Your task to perform on an android device: Open the stopwatch Image 0: 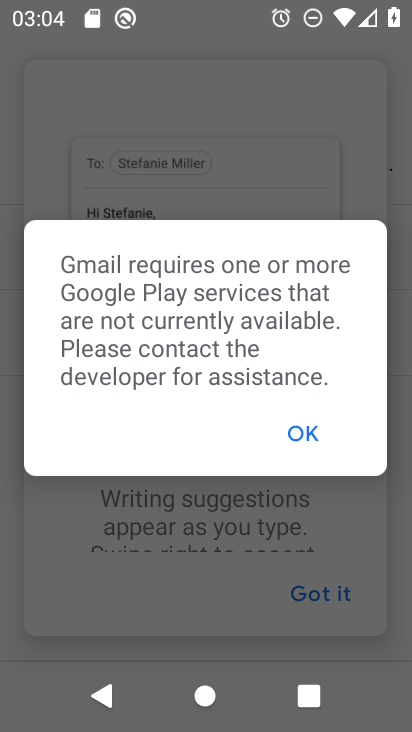
Step 0: press home button
Your task to perform on an android device: Open the stopwatch Image 1: 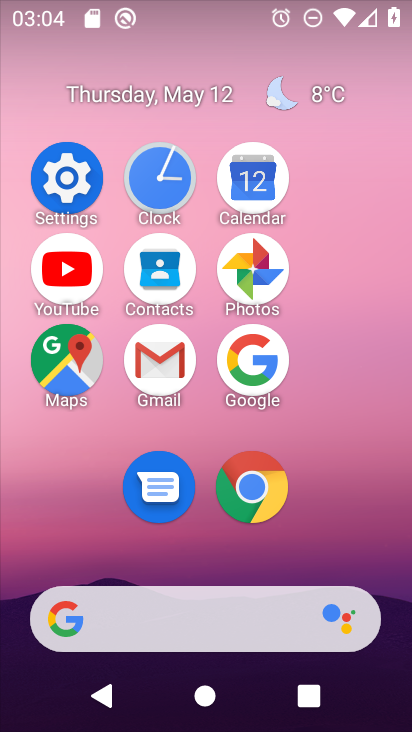
Step 1: click (161, 182)
Your task to perform on an android device: Open the stopwatch Image 2: 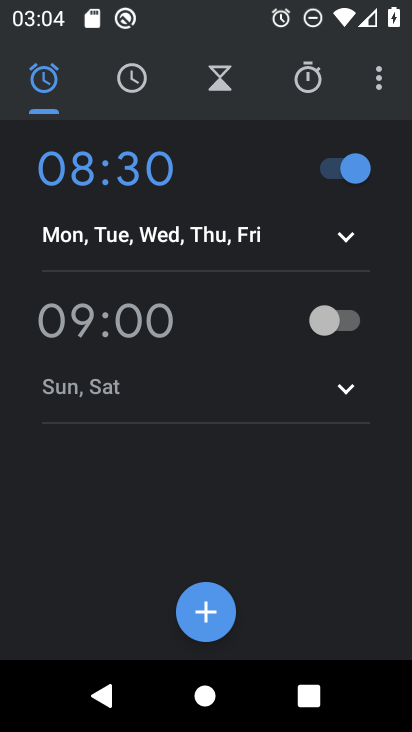
Step 2: click (297, 71)
Your task to perform on an android device: Open the stopwatch Image 3: 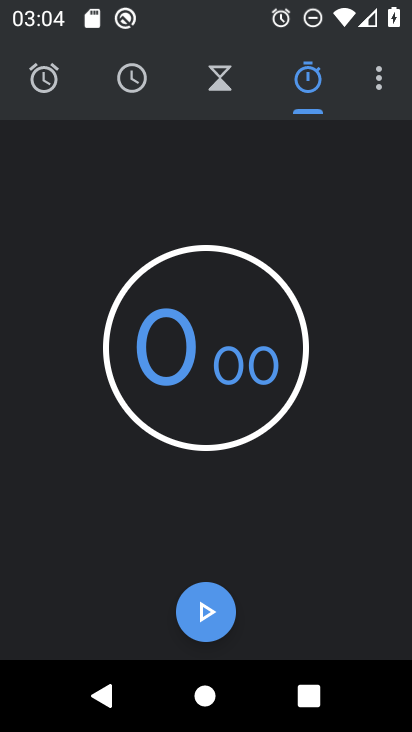
Step 3: task complete